Your task to perform on an android device: Turn off the flashlight Image 0: 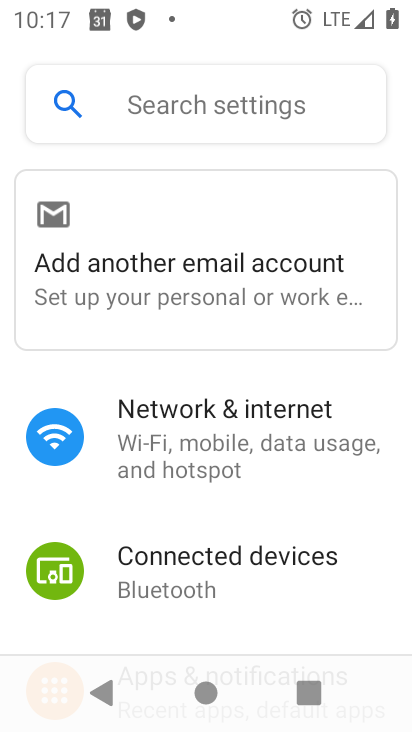
Step 0: press home button
Your task to perform on an android device: Turn off the flashlight Image 1: 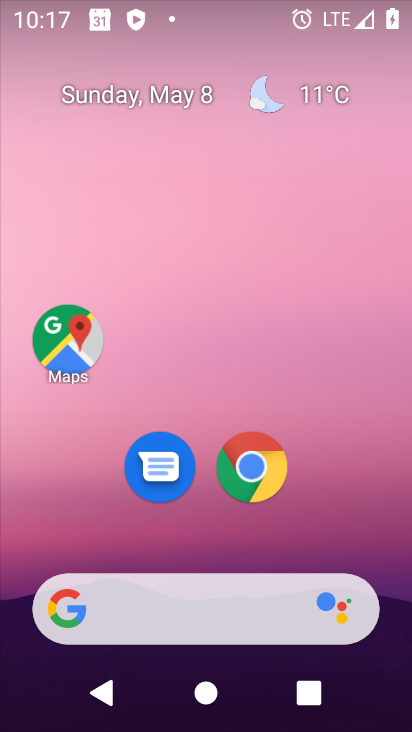
Step 1: drag from (52, 589) to (265, 237)
Your task to perform on an android device: Turn off the flashlight Image 2: 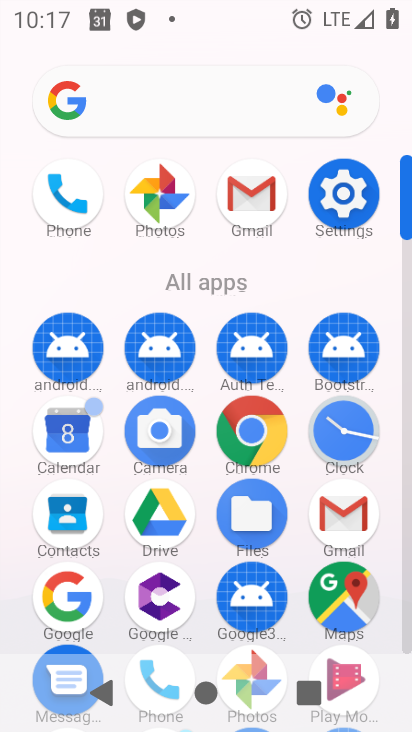
Step 2: click (338, 197)
Your task to perform on an android device: Turn off the flashlight Image 3: 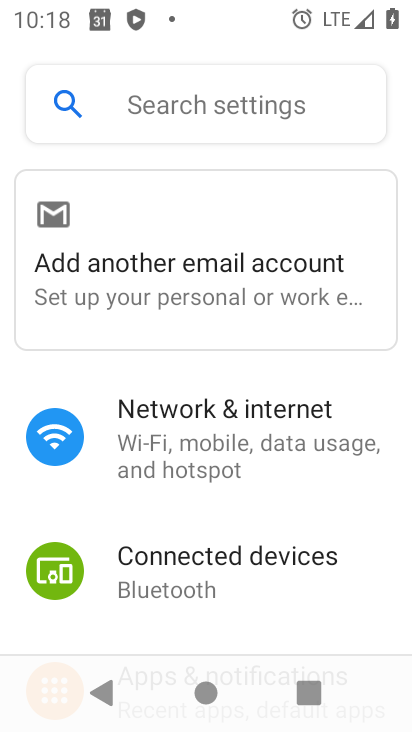
Step 3: click (245, 585)
Your task to perform on an android device: Turn off the flashlight Image 4: 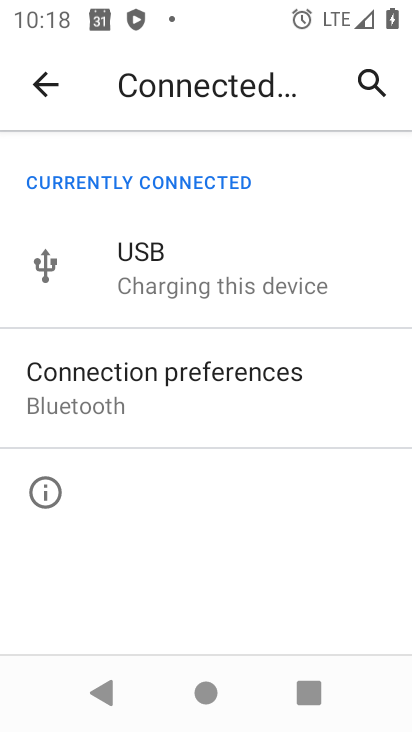
Step 4: task complete